Your task to perform on an android device: Go to battery settings Image 0: 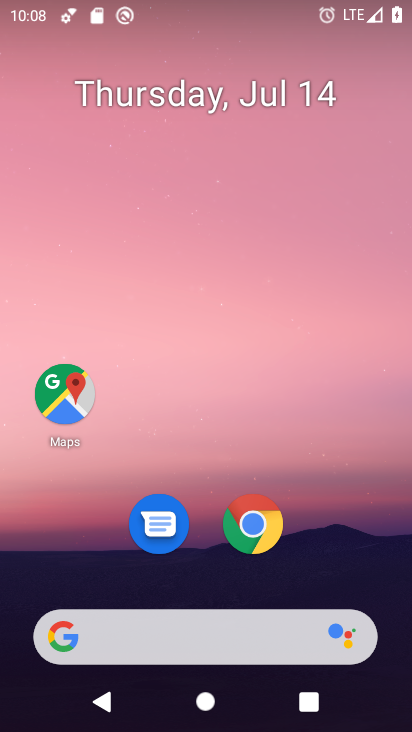
Step 0: drag from (340, 546) to (376, 14)
Your task to perform on an android device: Go to battery settings Image 1: 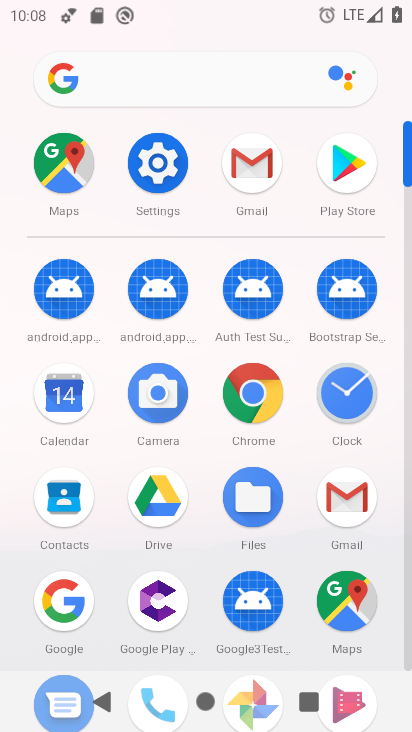
Step 1: click (165, 169)
Your task to perform on an android device: Go to battery settings Image 2: 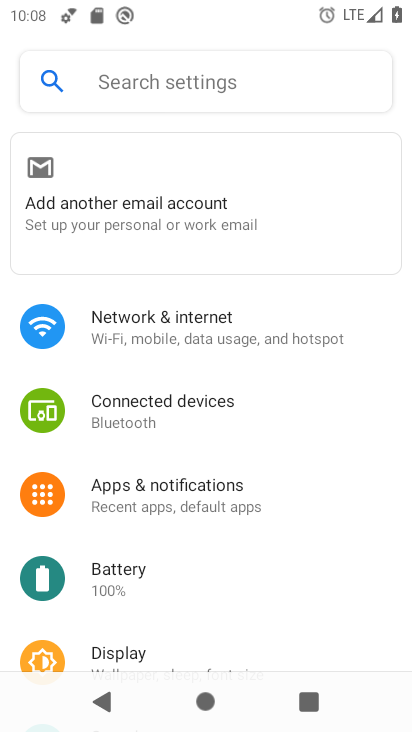
Step 2: click (199, 578)
Your task to perform on an android device: Go to battery settings Image 3: 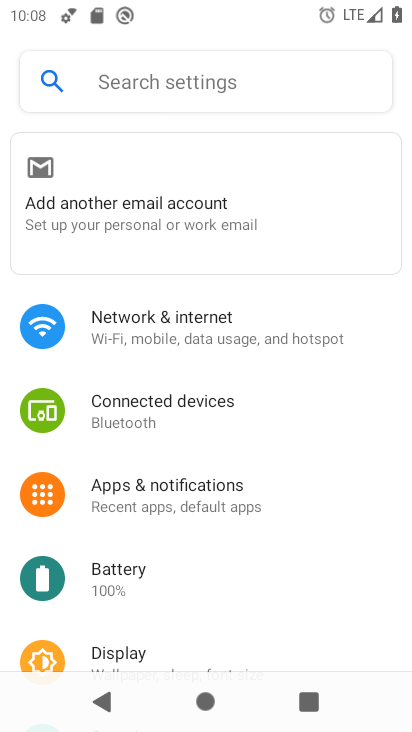
Step 3: click (134, 573)
Your task to perform on an android device: Go to battery settings Image 4: 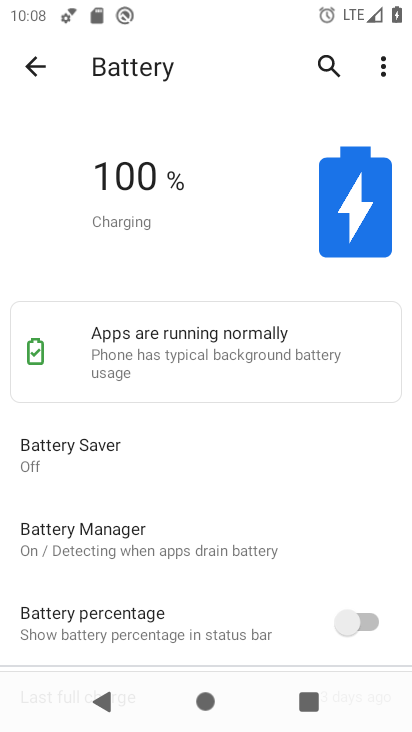
Step 4: task complete